Your task to perform on an android device: turn on airplane mode Image 0: 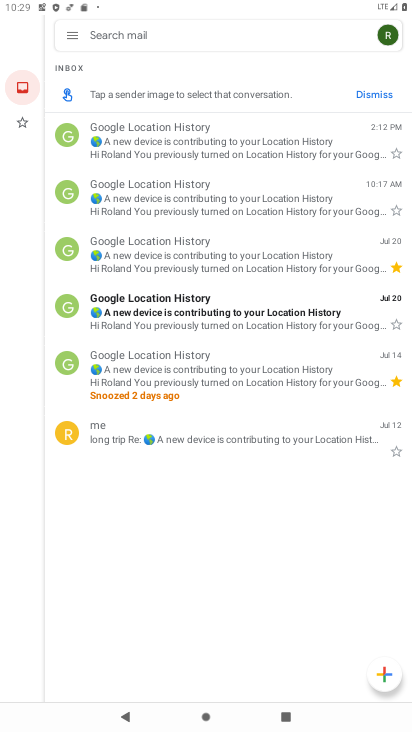
Step 0: drag from (336, 2) to (257, 457)
Your task to perform on an android device: turn on airplane mode Image 1: 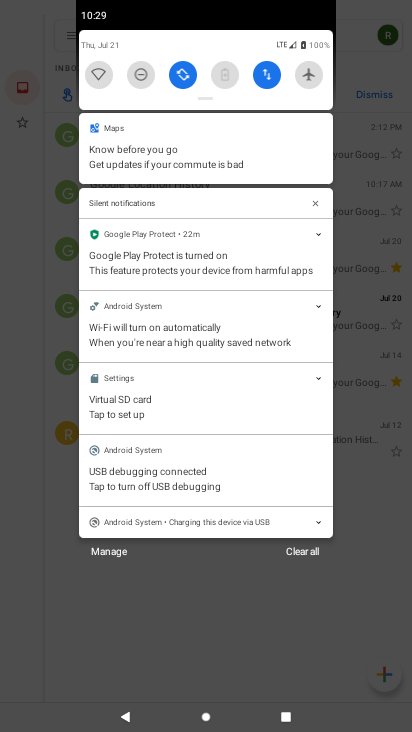
Step 1: click (308, 70)
Your task to perform on an android device: turn on airplane mode Image 2: 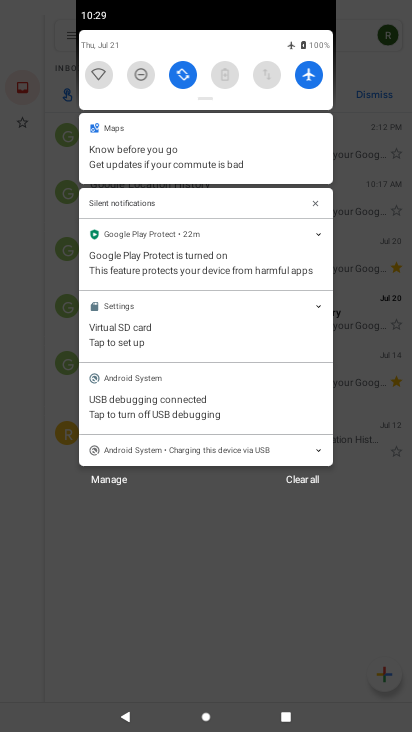
Step 2: task complete